Your task to perform on an android device: Open Amazon Image 0: 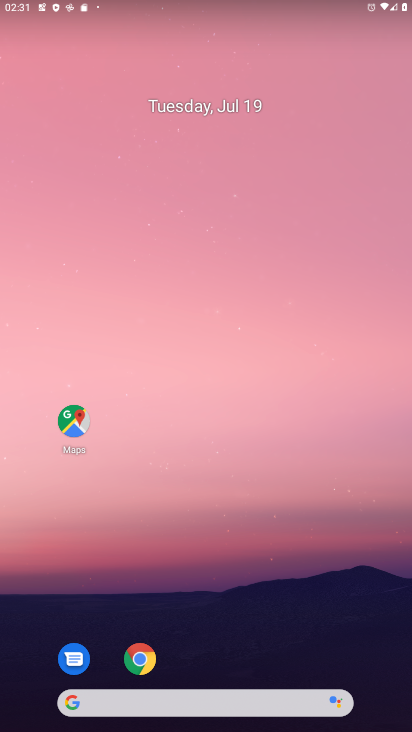
Step 0: press home button
Your task to perform on an android device: Open Amazon Image 1: 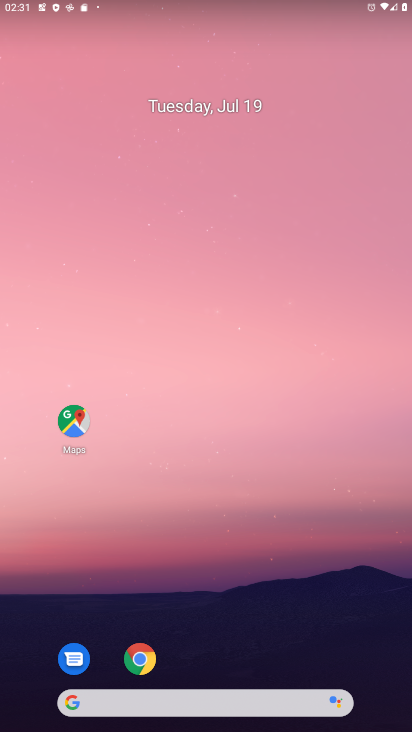
Step 1: click (148, 666)
Your task to perform on an android device: Open Amazon Image 2: 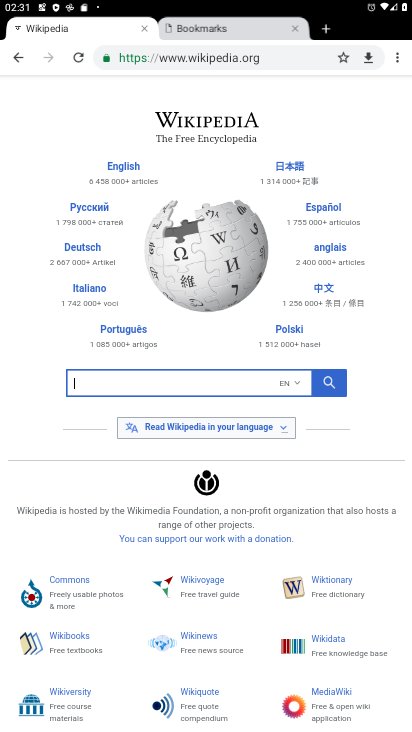
Step 2: click (204, 62)
Your task to perform on an android device: Open Amazon Image 3: 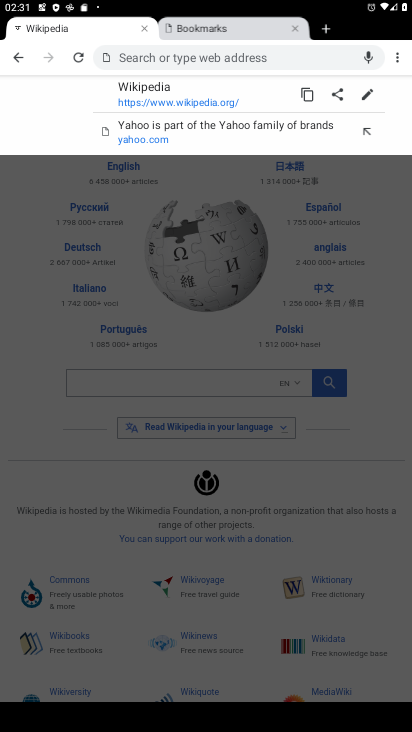
Step 3: type "Amazon"
Your task to perform on an android device: Open Amazon Image 4: 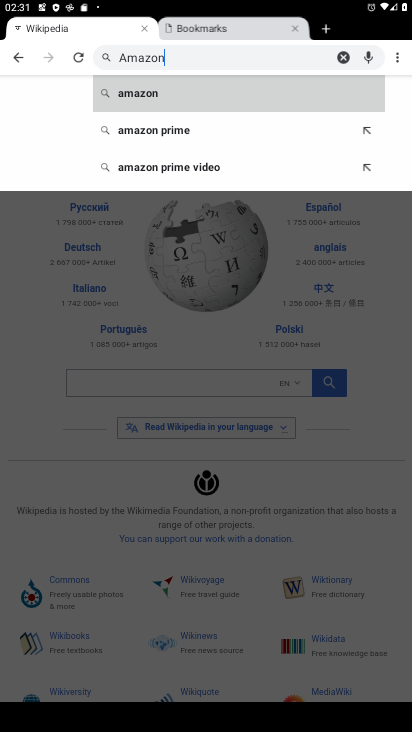
Step 4: type ""
Your task to perform on an android device: Open Amazon Image 5: 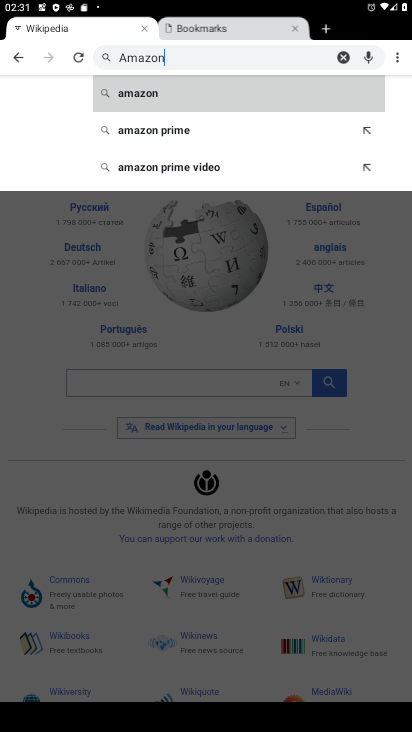
Step 5: click (209, 107)
Your task to perform on an android device: Open Amazon Image 6: 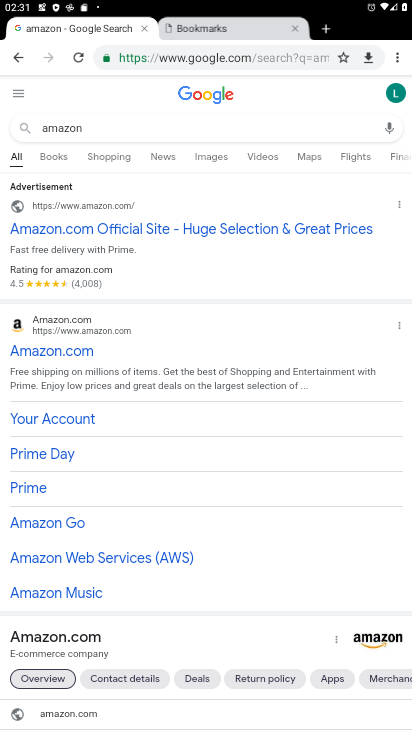
Step 6: click (67, 232)
Your task to perform on an android device: Open Amazon Image 7: 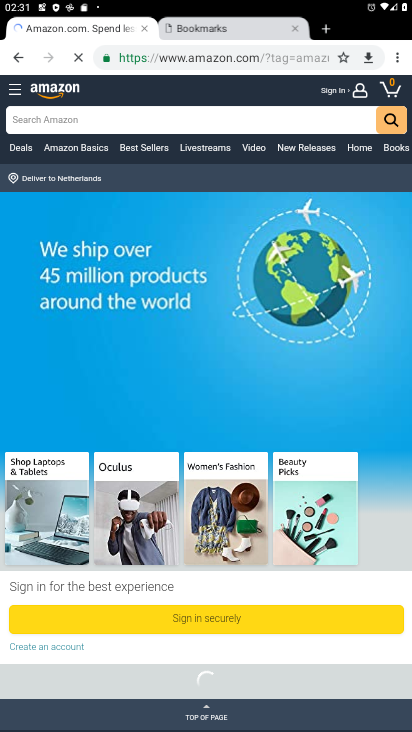
Step 7: task complete